Your task to perform on an android device: install app "DoorDash - Food Delivery" Image 0: 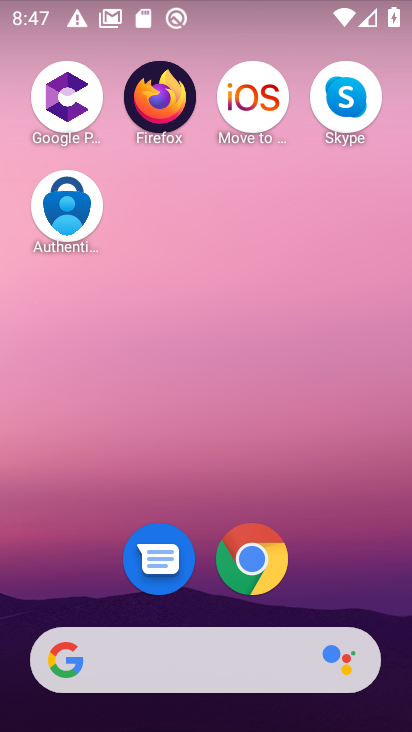
Step 0: drag from (354, 615) to (323, 35)
Your task to perform on an android device: install app "DoorDash - Food Delivery" Image 1: 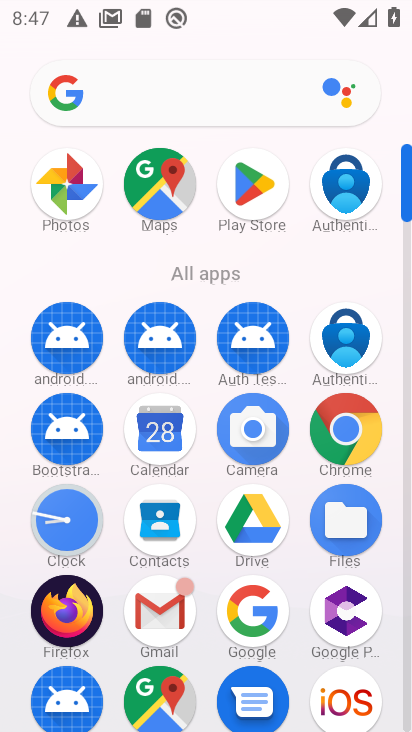
Step 1: click (253, 182)
Your task to perform on an android device: install app "DoorDash - Food Delivery" Image 2: 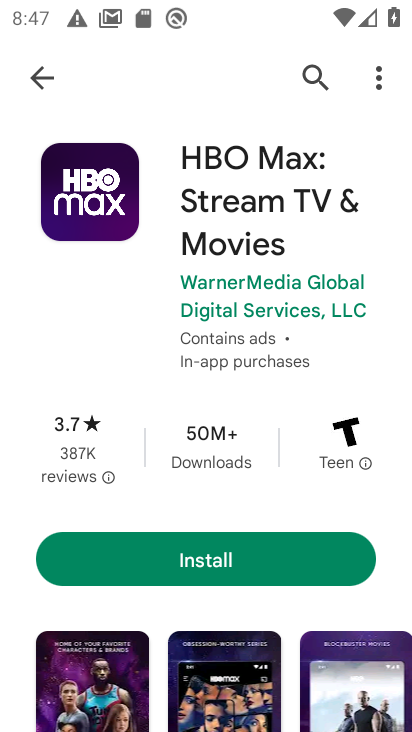
Step 2: click (308, 80)
Your task to perform on an android device: install app "DoorDash - Food Delivery" Image 3: 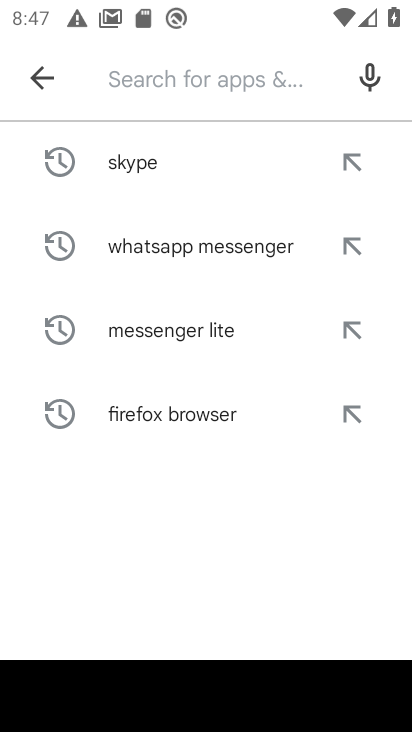
Step 3: type "DoorDash - Food Delivery"
Your task to perform on an android device: install app "DoorDash - Food Delivery" Image 4: 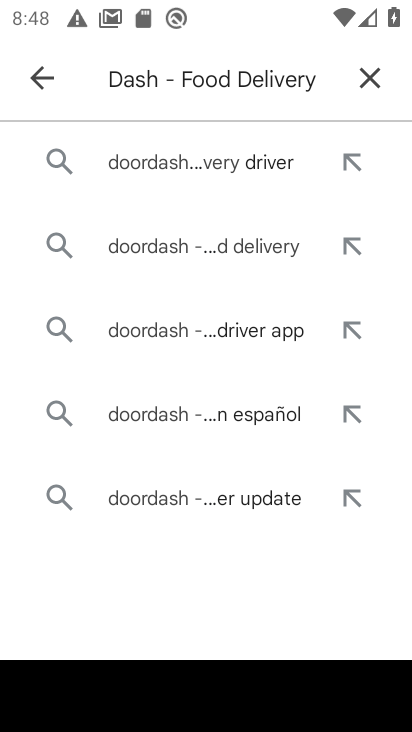
Step 4: click (149, 249)
Your task to perform on an android device: install app "DoorDash - Food Delivery" Image 5: 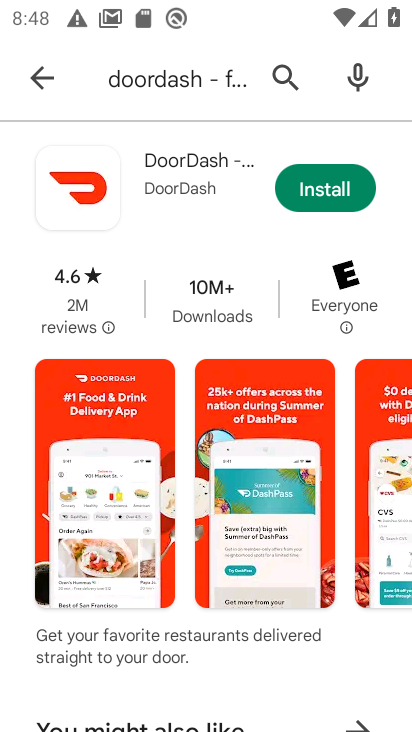
Step 5: click (309, 204)
Your task to perform on an android device: install app "DoorDash - Food Delivery" Image 6: 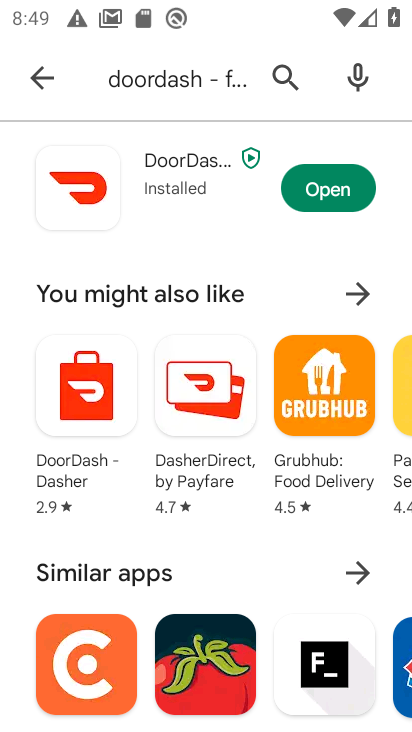
Step 6: task complete